Your task to perform on an android device: turn off notifications in google photos Image 0: 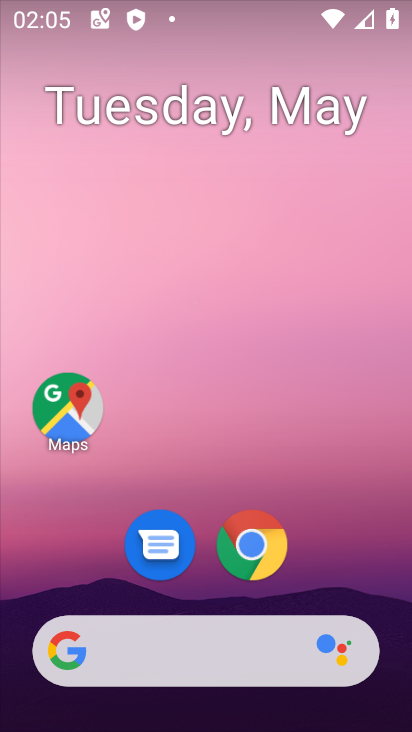
Step 0: drag from (399, 618) to (330, 62)
Your task to perform on an android device: turn off notifications in google photos Image 1: 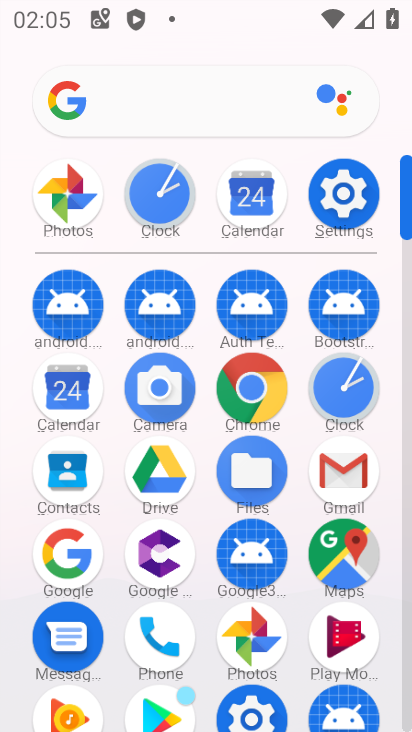
Step 1: click (405, 700)
Your task to perform on an android device: turn off notifications in google photos Image 2: 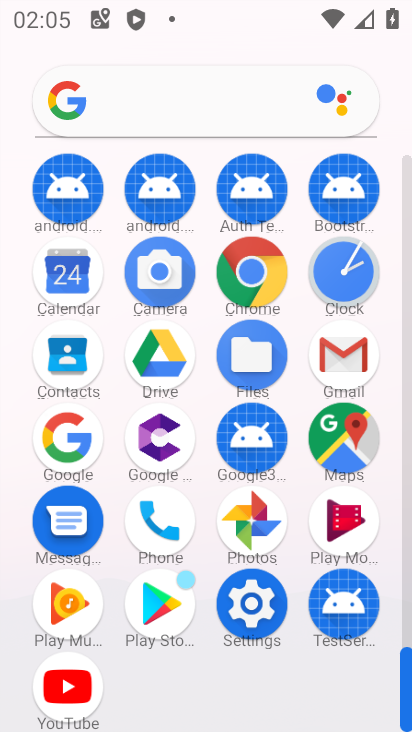
Step 2: click (252, 523)
Your task to perform on an android device: turn off notifications in google photos Image 3: 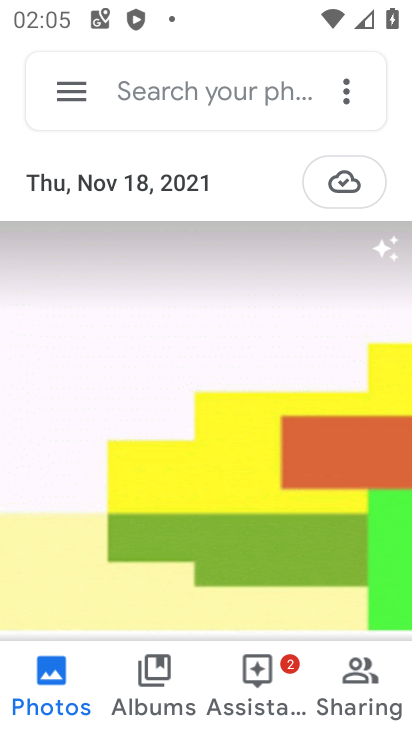
Step 3: click (78, 93)
Your task to perform on an android device: turn off notifications in google photos Image 4: 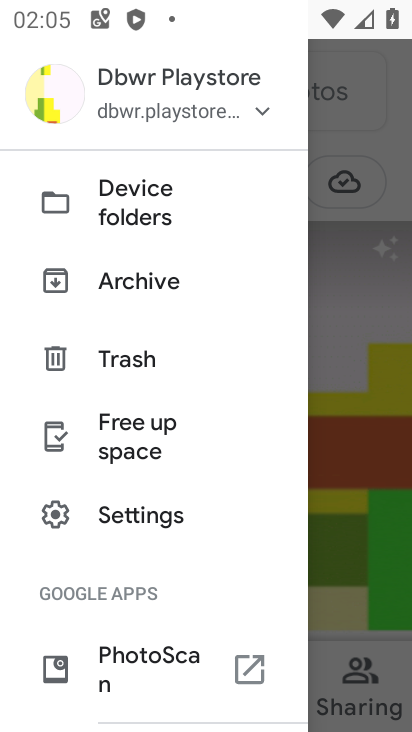
Step 4: click (153, 513)
Your task to perform on an android device: turn off notifications in google photos Image 5: 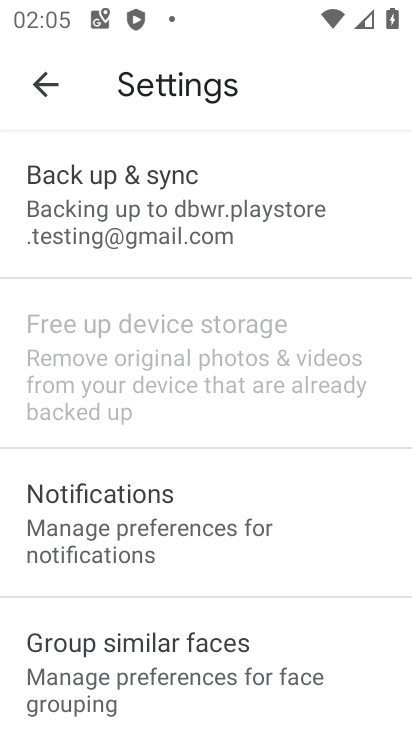
Step 5: click (109, 507)
Your task to perform on an android device: turn off notifications in google photos Image 6: 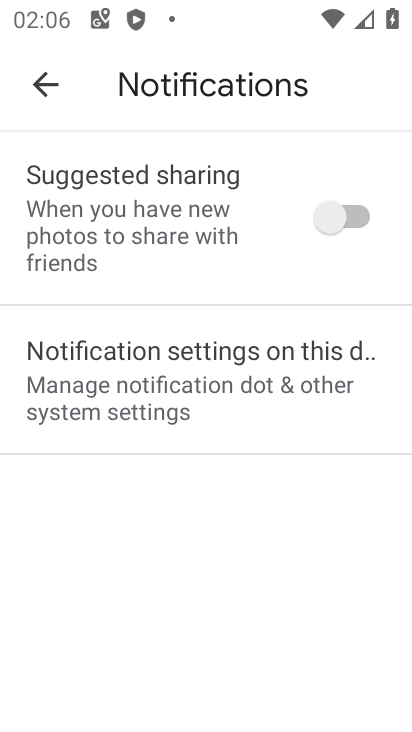
Step 6: click (173, 363)
Your task to perform on an android device: turn off notifications in google photos Image 7: 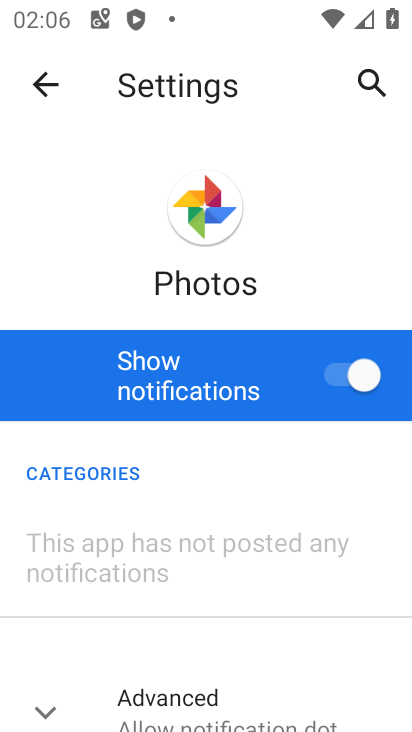
Step 7: click (331, 381)
Your task to perform on an android device: turn off notifications in google photos Image 8: 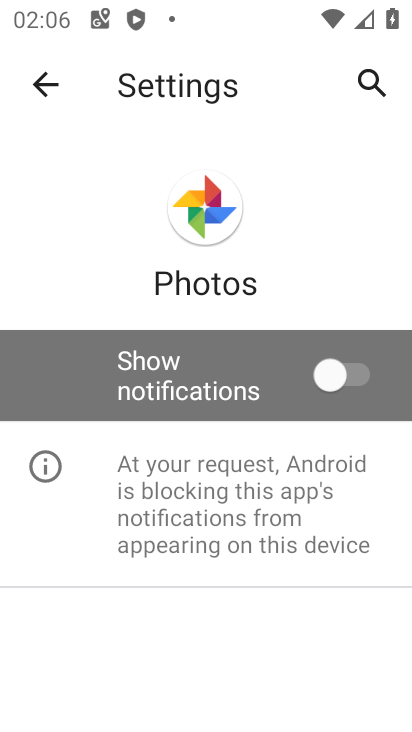
Step 8: task complete